Your task to perform on an android device: Show me popular videos on Youtube Image 0: 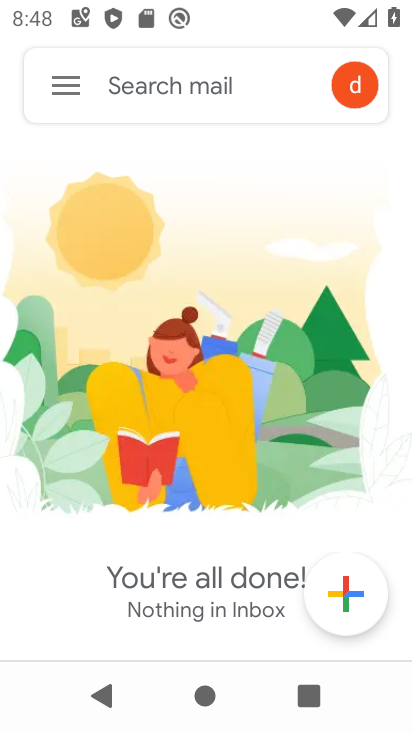
Step 0: press home button
Your task to perform on an android device: Show me popular videos on Youtube Image 1: 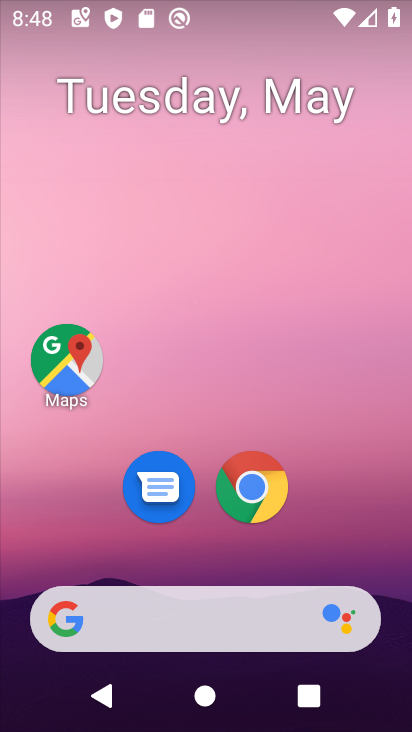
Step 1: drag from (378, 550) to (378, 213)
Your task to perform on an android device: Show me popular videos on Youtube Image 2: 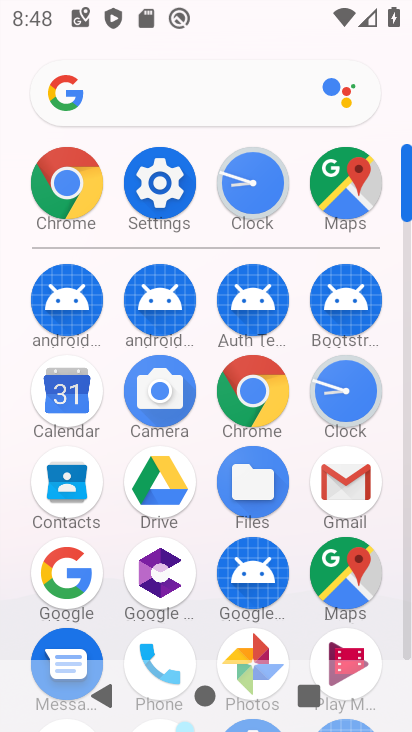
Step 2: drag from (383, 633) to (396, 337)
Your task to perform on an android device: Show me popular videos on Youtube Image 3: 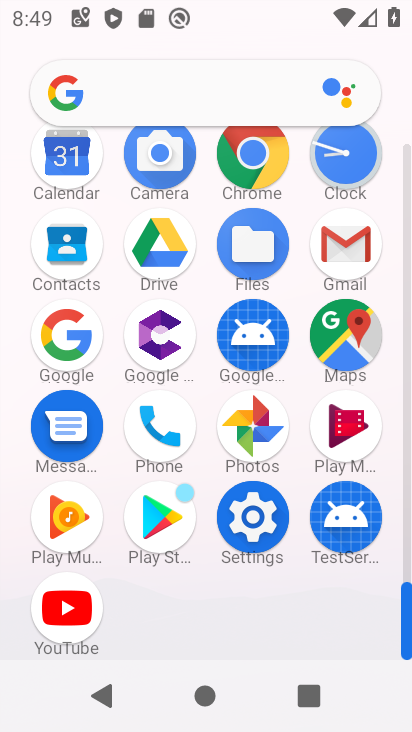
Step 3: click (80, 622)
Your task to perform on an android device: Show me popular videos on Youtube Image 4: 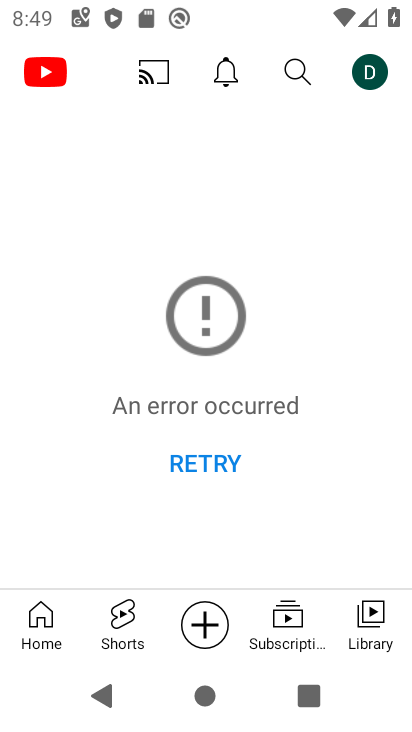
Step 4: click (80, 622)
Your task to perform on an android device: Show me popular videos on Youtube Image 5: 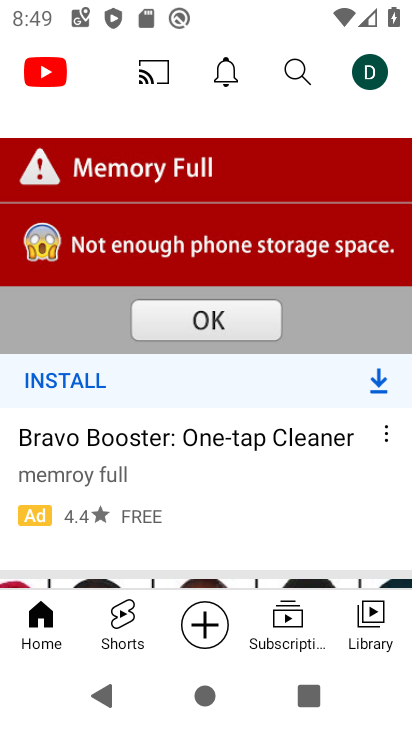
Step 5: task complete